Your task to perform on an android device: open app "Speedtest by Ookla" Image 0: 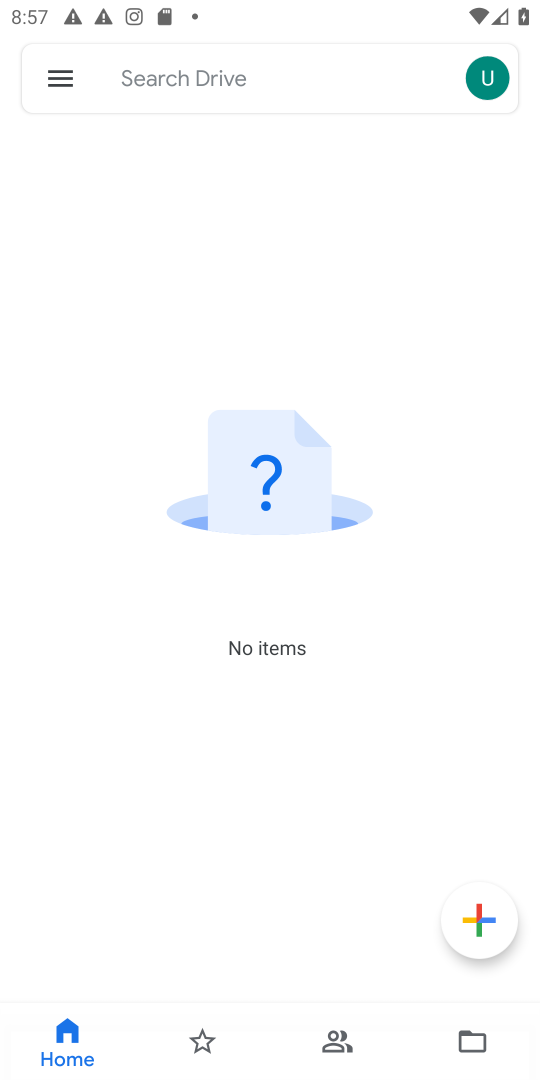
Step 0: press home button
Your task to perform on an android device: open app "Speedtest by Ookla" Image 1: 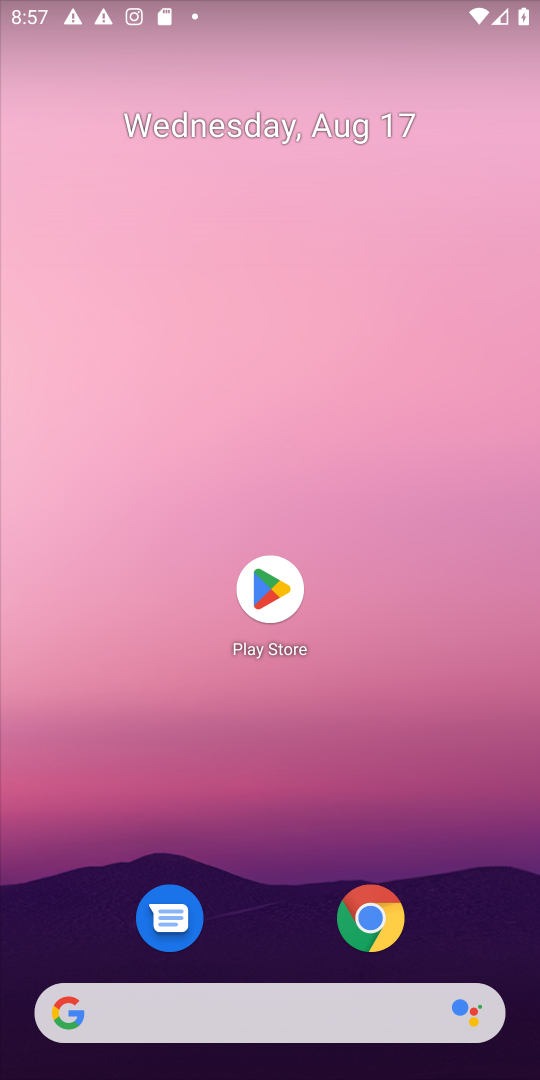
Step 1: click (254, 581)
Your task to perform on an android device: open app "Speedtest by Ookla" Image 2: 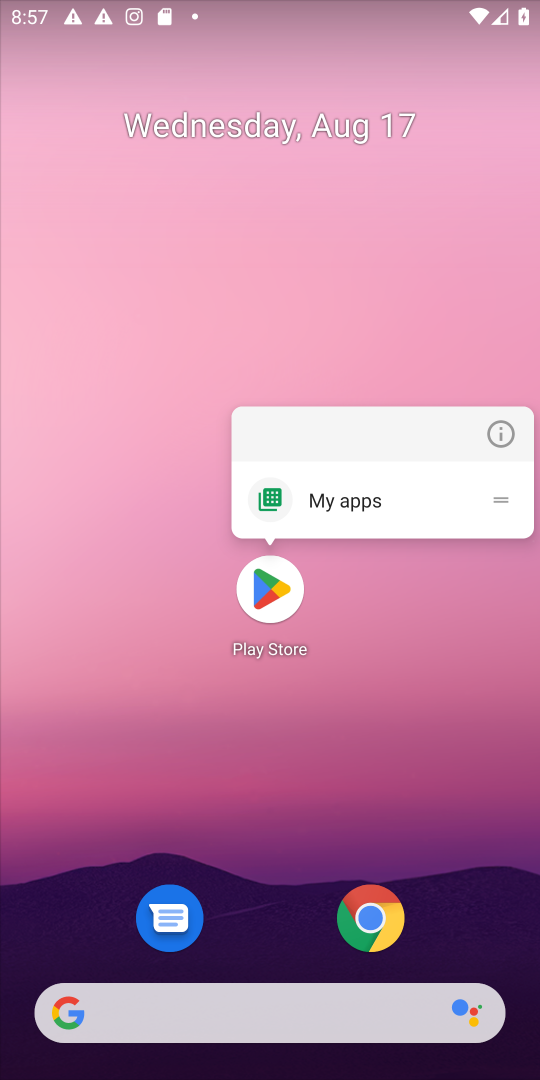
Step 2: click (254, 587)
Your task to perform on an android device: open app "Speedtest by Ookla" Image 3: 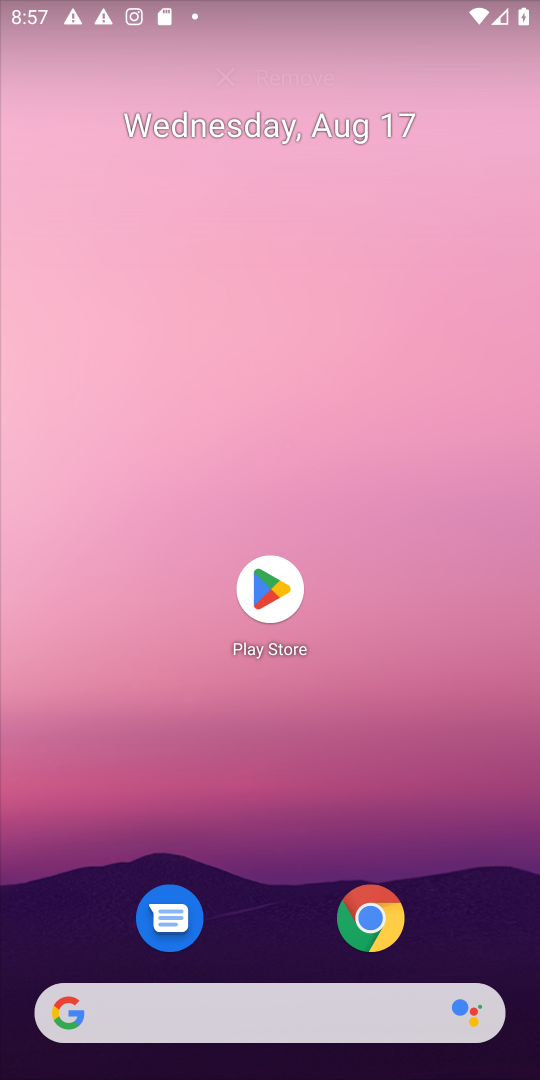
Step 3: click (267, 592)
Your task to perform on an android device: open app "Speedtest by Ookla" Image 4: 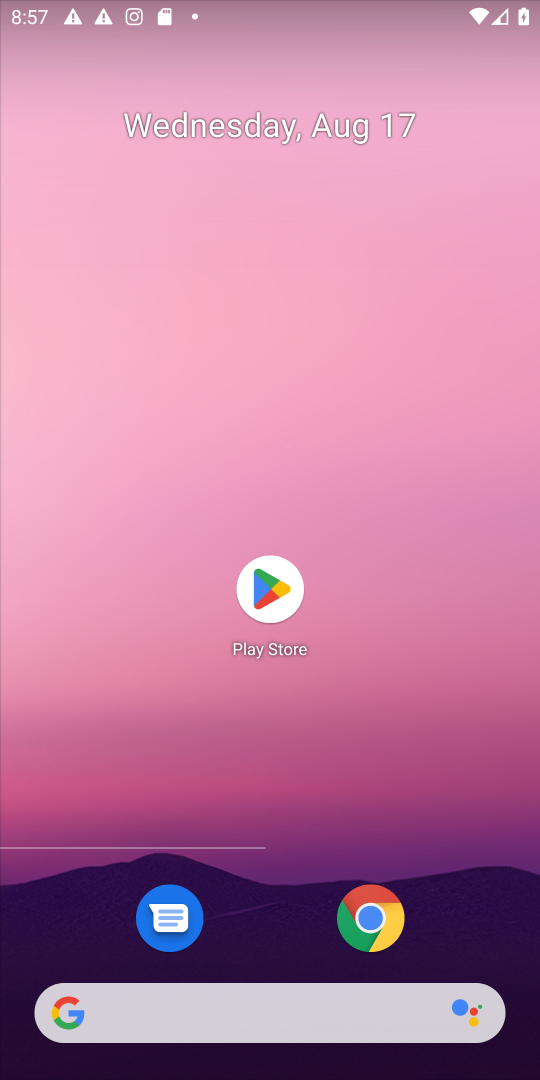
Step 4: click (267, 592)
Your task to perform on an android device: open app "Speedtest by Ookla" Image 5: 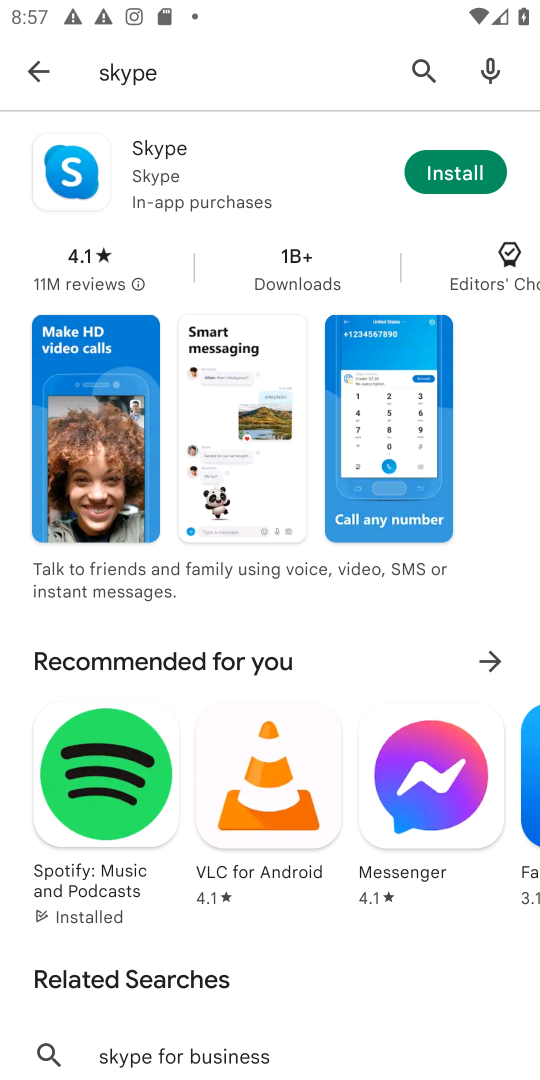
Step 5: click (417, 68)
Your task to perform on an android device: open app "Speedtest by Ookla" Image 6: 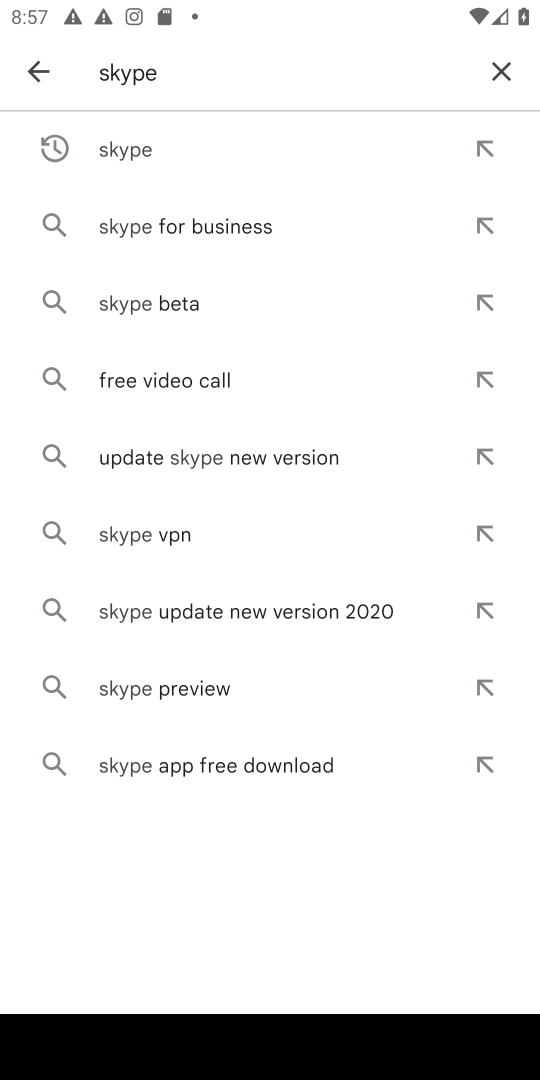
Step 6: click (498, 70)
Your task to perform on an android device: open app "Speedtest by Ookla" Image 7: 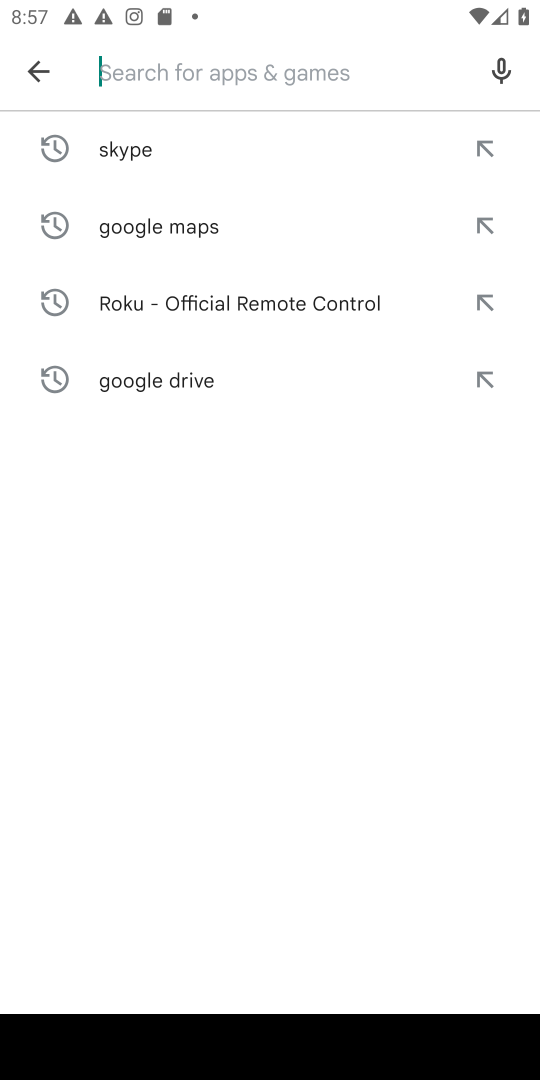
Step 7: type "Speedtest by Ookla"
Your task to perform on an android device: open app "Speedtest by Ookla" Image 8: 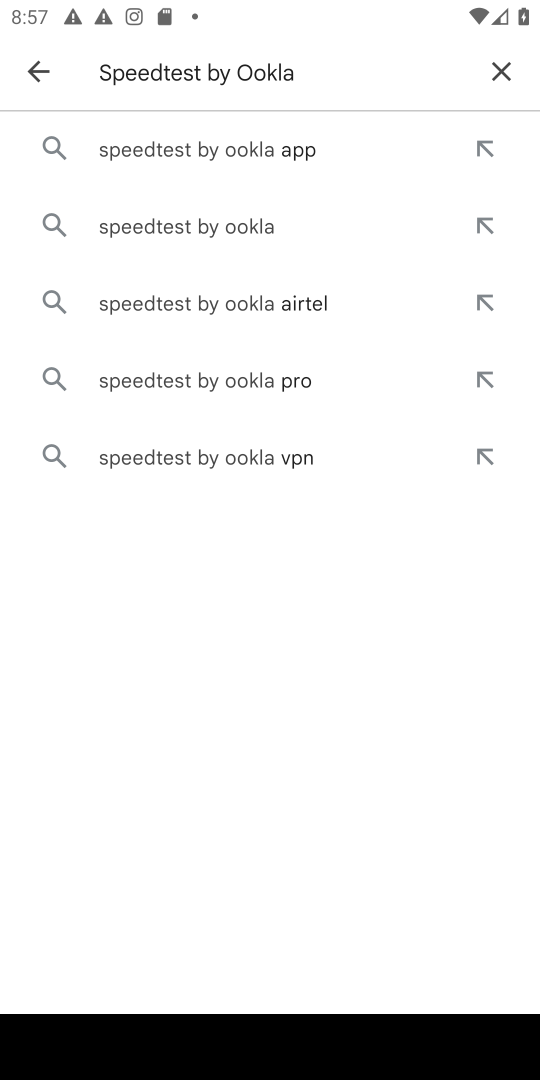
Step 8: click (178, 154)
Your task to perform on an android device: open app "Speedtest by Ookla" Image 9: 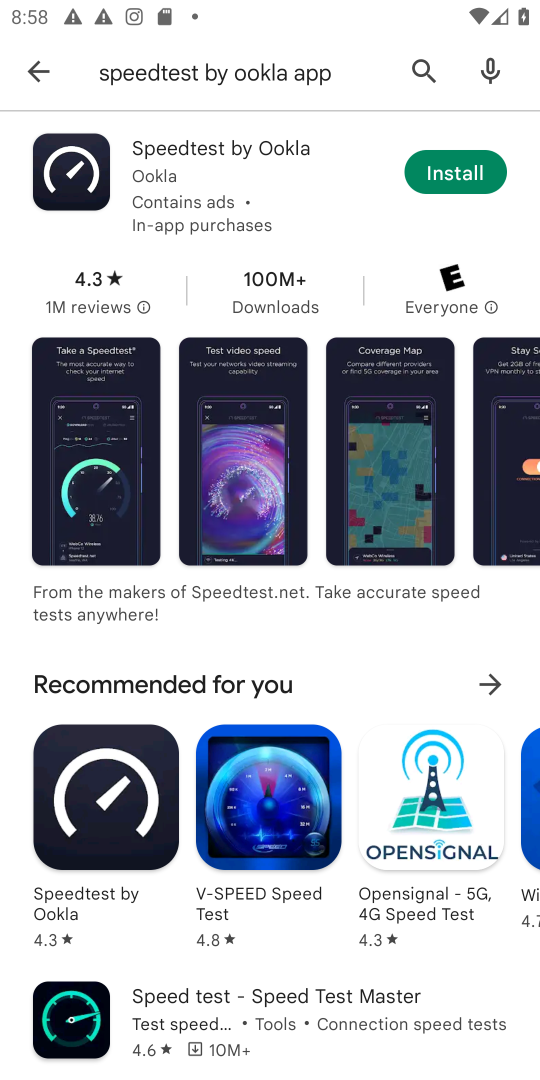
Step 9: task complete